Your task to perform on an android device: turn off picture-in-picture Image 0: 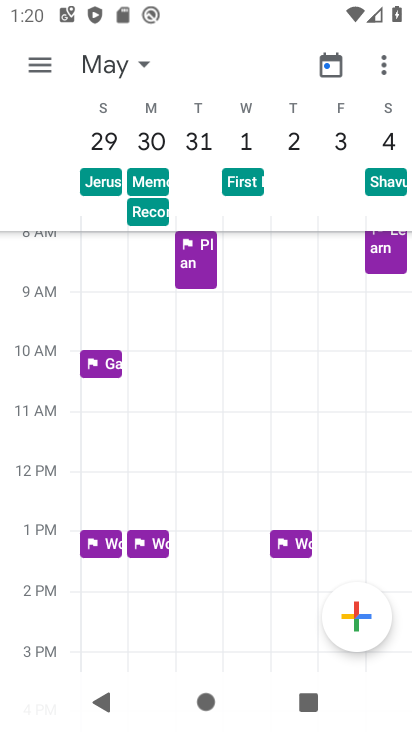
Step 0: press home button
Your task to perform on an android device: turn off picture-in-picture Image 1: 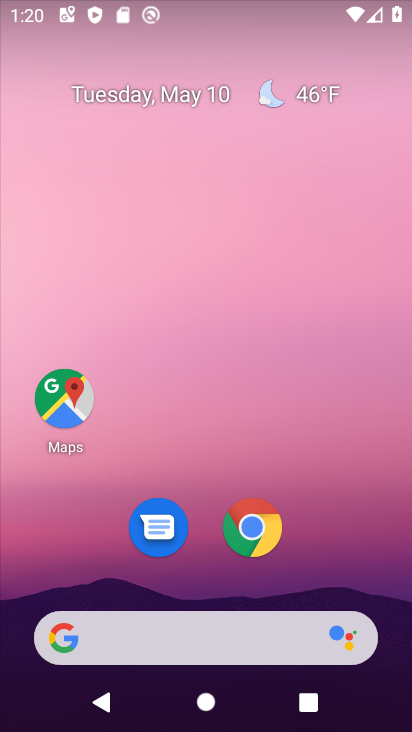
Step 1: click (252, 529)
Your task to perform on an android device: turn off picture-in-picture Image 2: 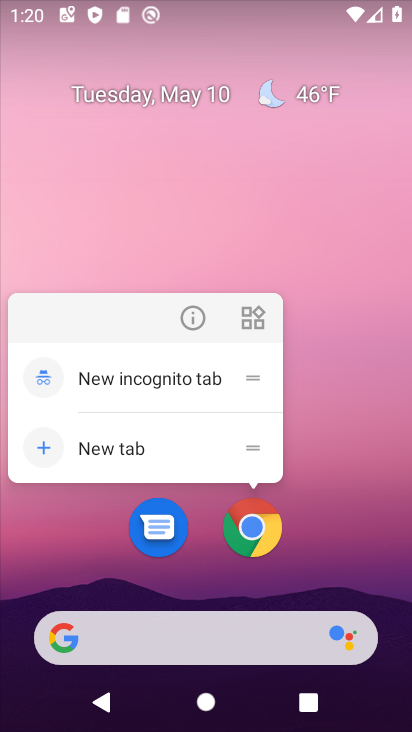
Step 2: click (191, 321)
Your task to perform on an android device: turn off picture-in-picture Image 3: 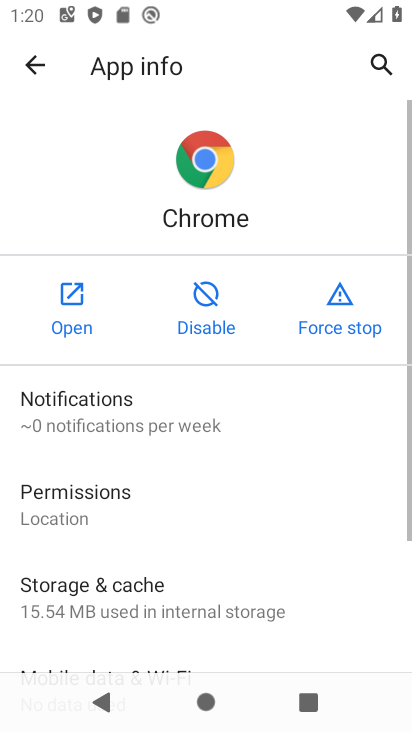
Step 3: drag from (253, 533) to (263, 74)
Your task to perform on an android device: turn off picture-in-picture Image 4: 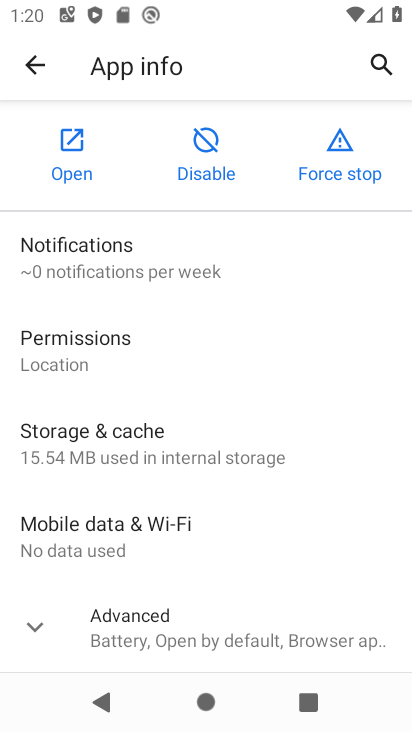
Step 4: click (33, 633)
Your task to perform on an android device: turn off picture-in-picture Image 5: 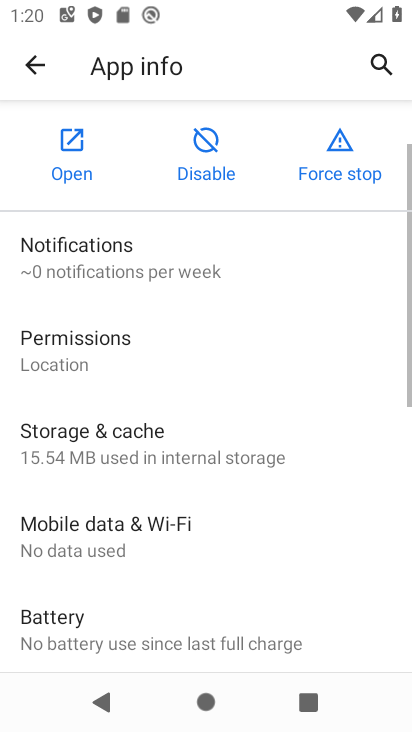
Step 5: drag from (188, 614) to (194, 183)
Your task to perform on an android device: turn off picture-in-picture Image 6: 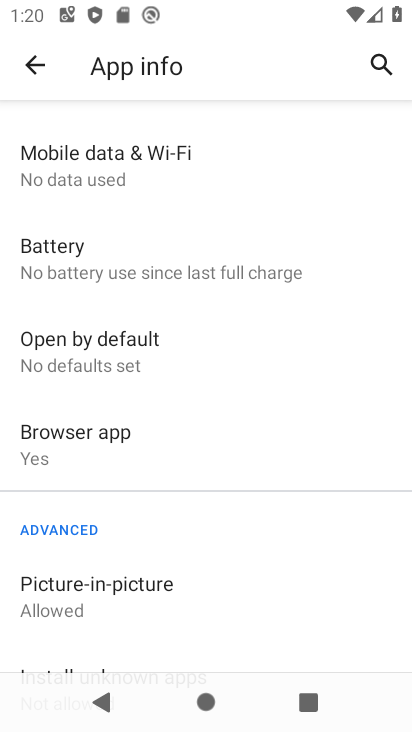
Step 6: click (101, 590)
Your task to perform on an android device: turn off picture-in-picture Image 7: 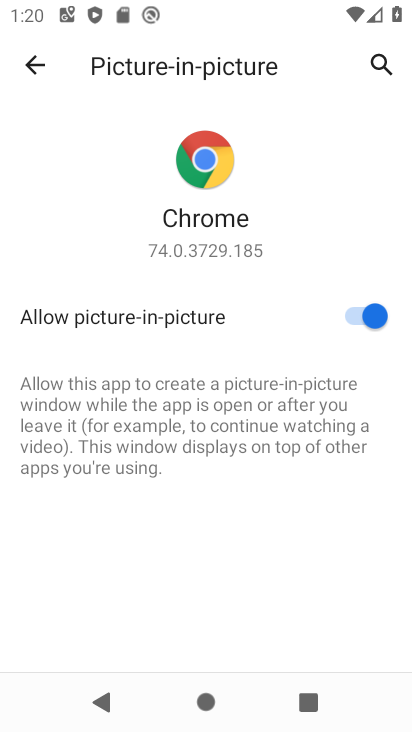
Step 7: click (370, 322)
Your task to perform on an android device: turn off picture-in-picture Image 8: 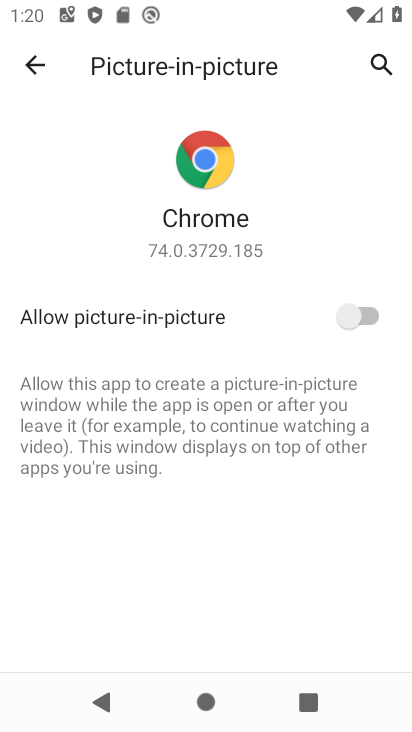
Step 8: task complete